Your task to perform on an android device: Go to Amazon Image 0: 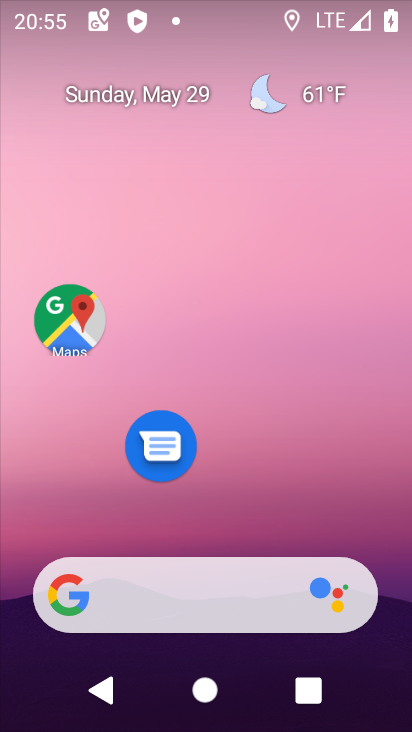
Step 0: drag from (224, 509) to (235, 218)
Your task to perform on an android device: Go to Amazon Image 1: 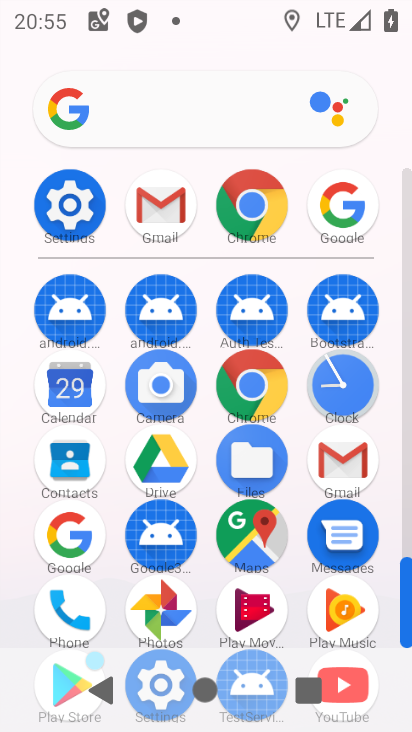
Step 1: click (234, 221)
Your task to perform on an android device: Go to Amazon Image 2: 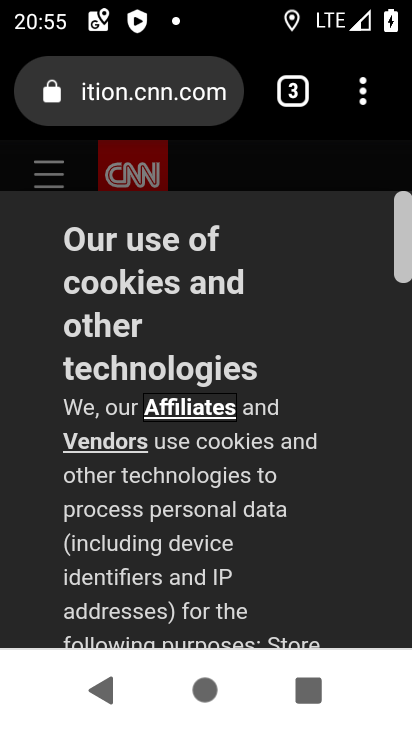
Step 2: click (281, 90)
Your task to perform on an android device: Go to Amazon Image 3: 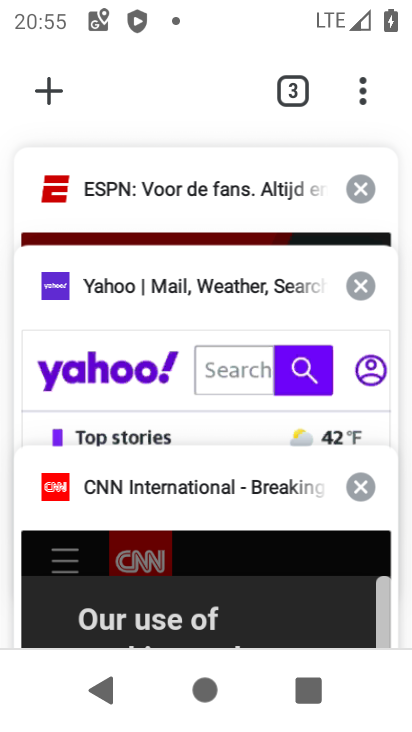
Step 3: click (46, 78)
Your task to perform on an android device: Go to Amazon Image 4: 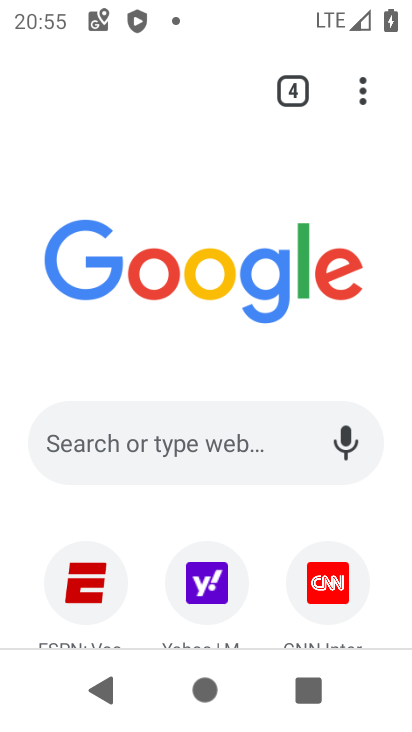
Step 4: drag from (237, 531) to (271, 310)
Your task to perform on an android device: Go to Amazon Image 5: 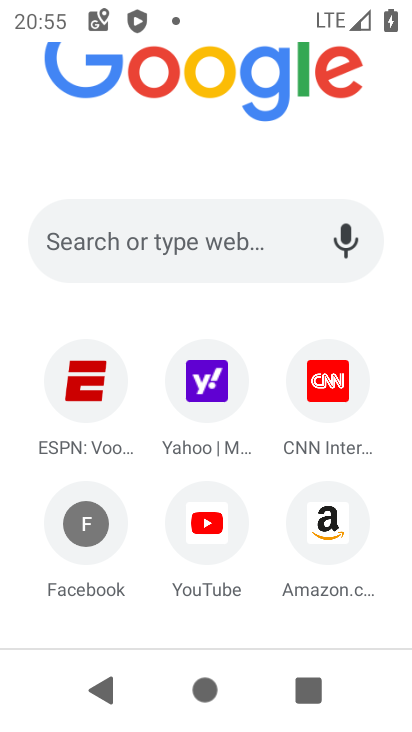
Step 5: click (312, 484)
Your task to perform on an android device: Go to Amazon Image 6: 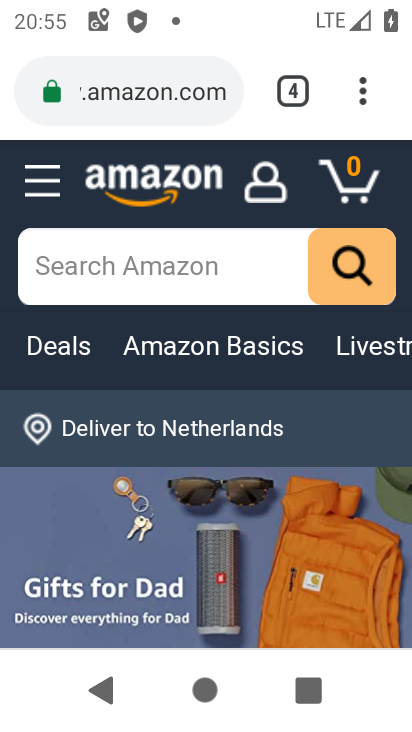
Step 6: task complete